Your task to perform on an android device: open app "LiveIn - Share Your Moment" Image 0: 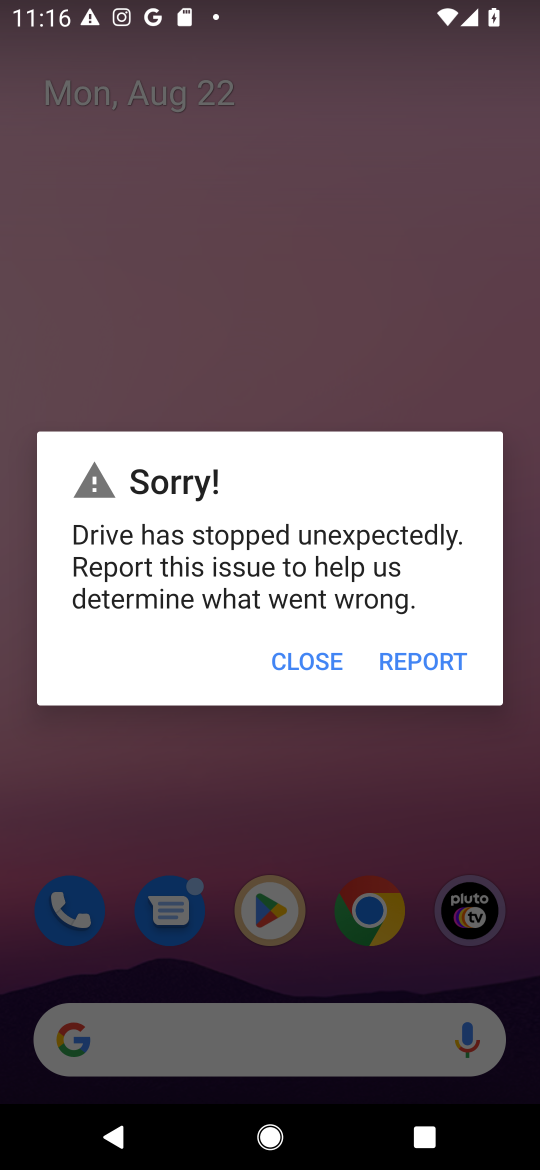
Step 0: click (315, 647)
Your task to perform on an android device: open app "LiveIn - Share Your Moment" Image 1: 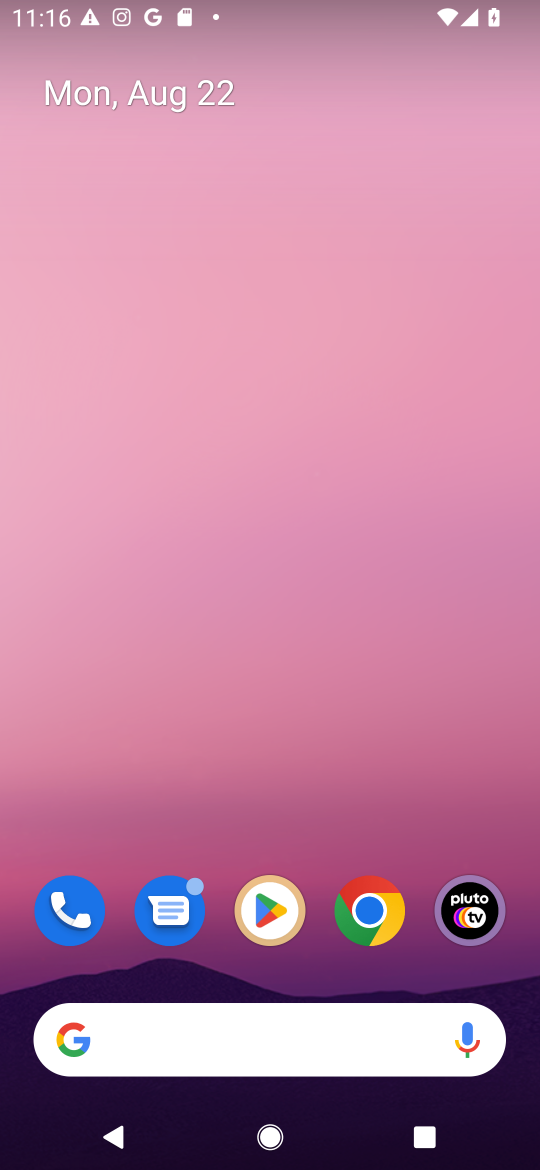
Step 1: click (261, 896)
Your task to perform on an android device: open app "LiveIn - Share Your Moment" Image 2: 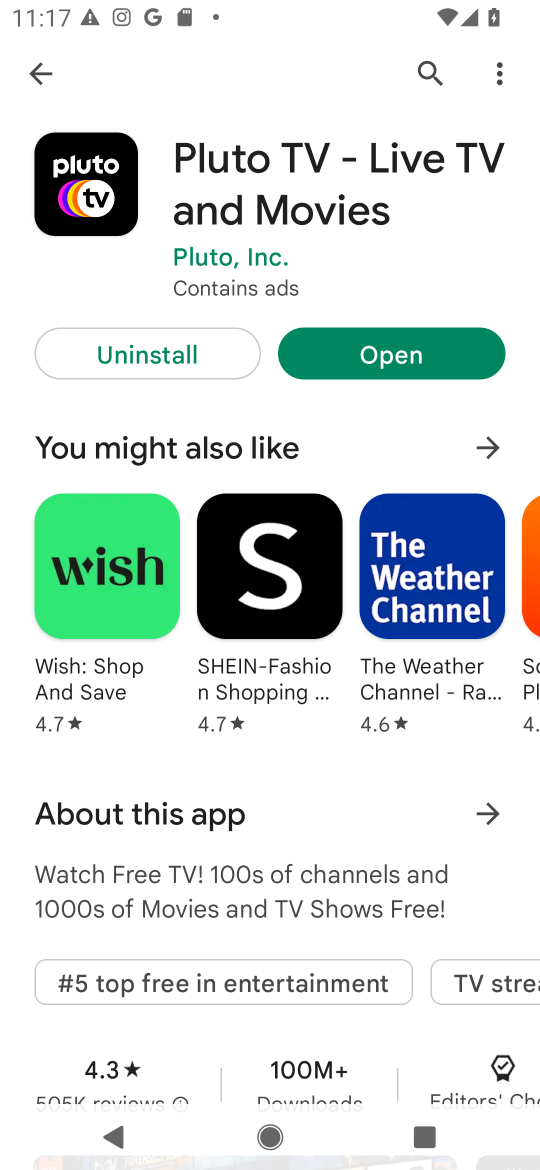
Step 2: click (425, 84)
Your task to perform on an android device: open app "LiveIn - Share Your Moment" Image 3: 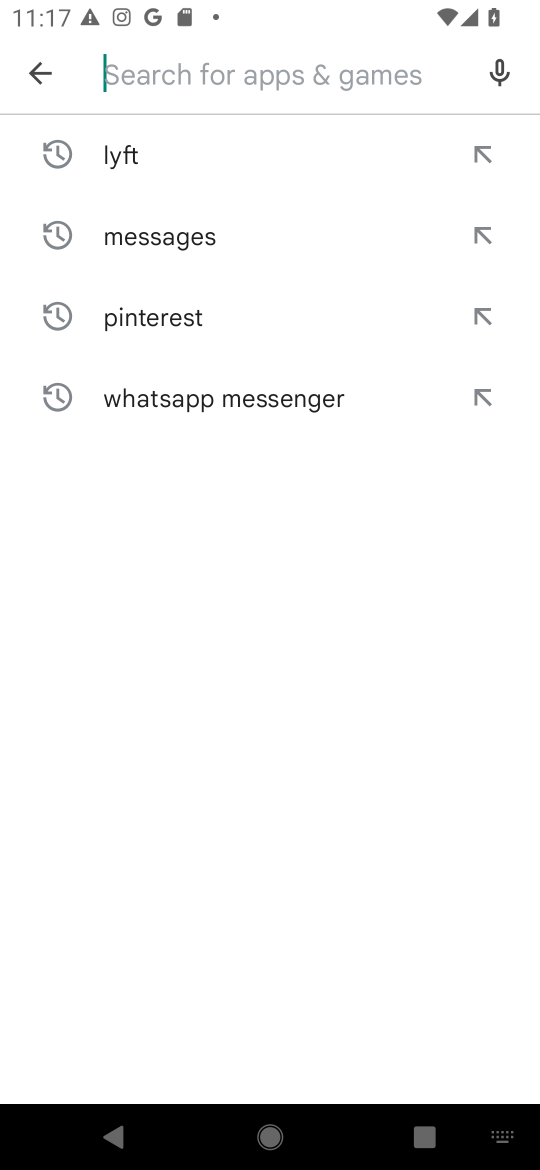
Step 3: type "LiveIn - Share Your Moment"
Your task to perform on an android device: open app "LiveIn - Share Your Moment" Image 4: 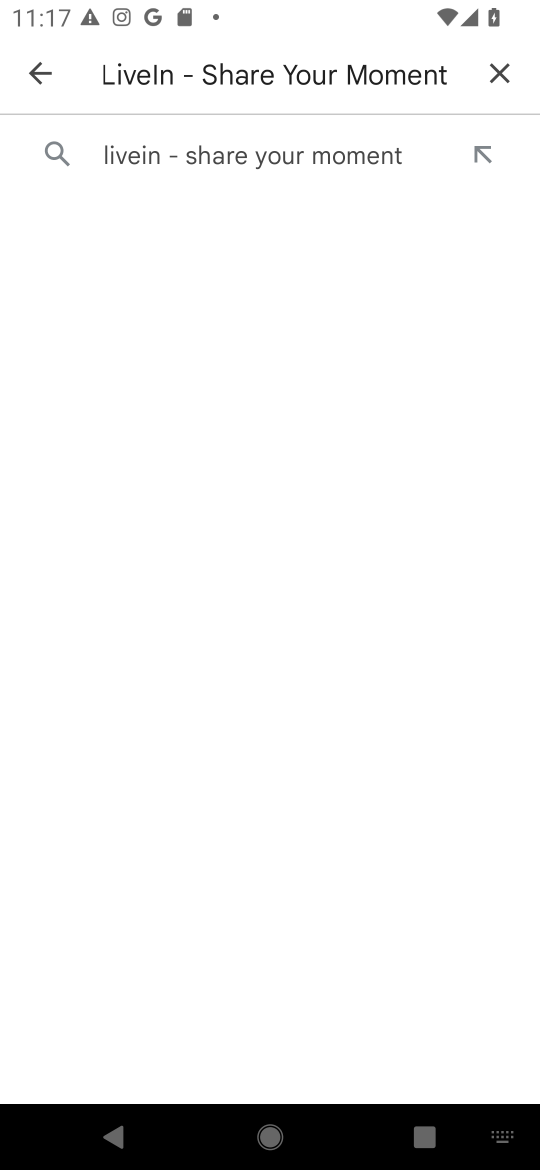
Step 4: click (327, 174)
Your task to perform on an android device: open app "LiveIn - Share Your Moment" Image 5: 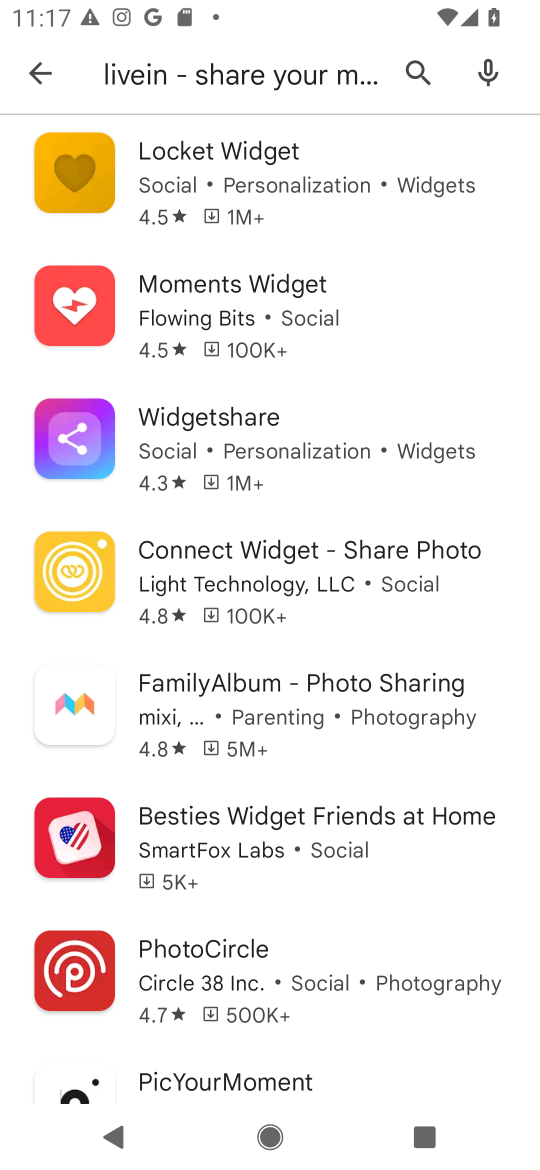
Step 5: task complete